Your task to perform on an android device: Check out the new nike air max 2020. Image 0: 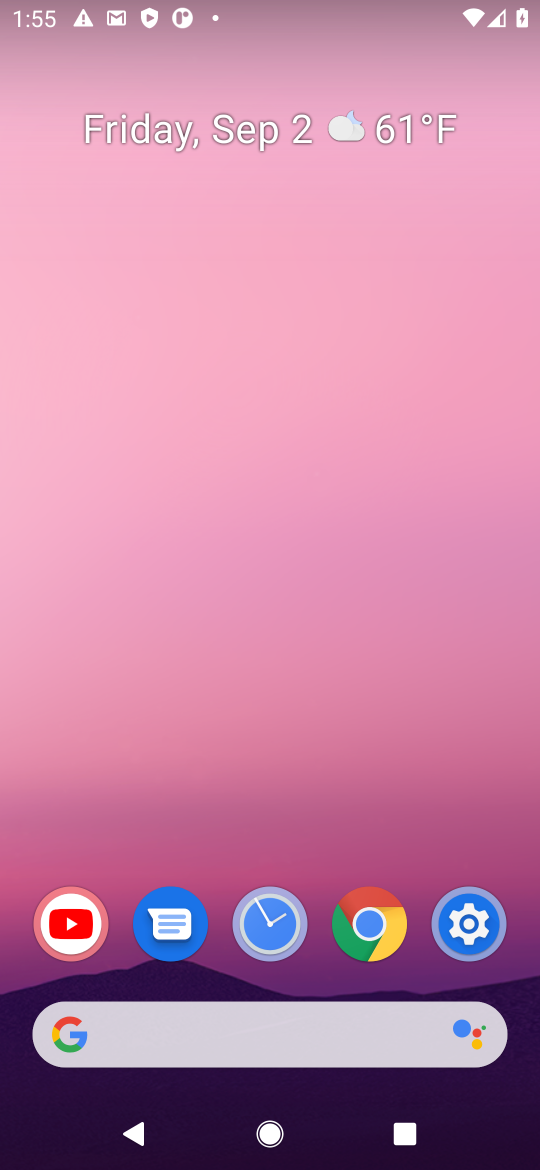
Step 0: press home button
Your task to perform on an android device: Check out the new nike air max 2020. Image 1: 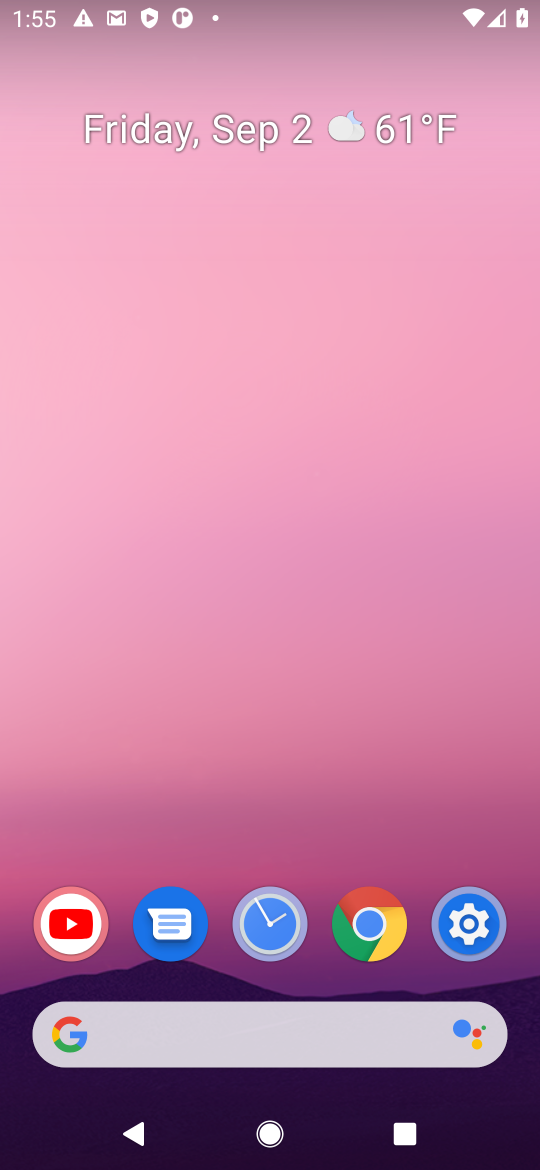
Step 1: click (389, 1034)
Your task to perform on an android device: Check out the new nike air max 2020. Image 2: 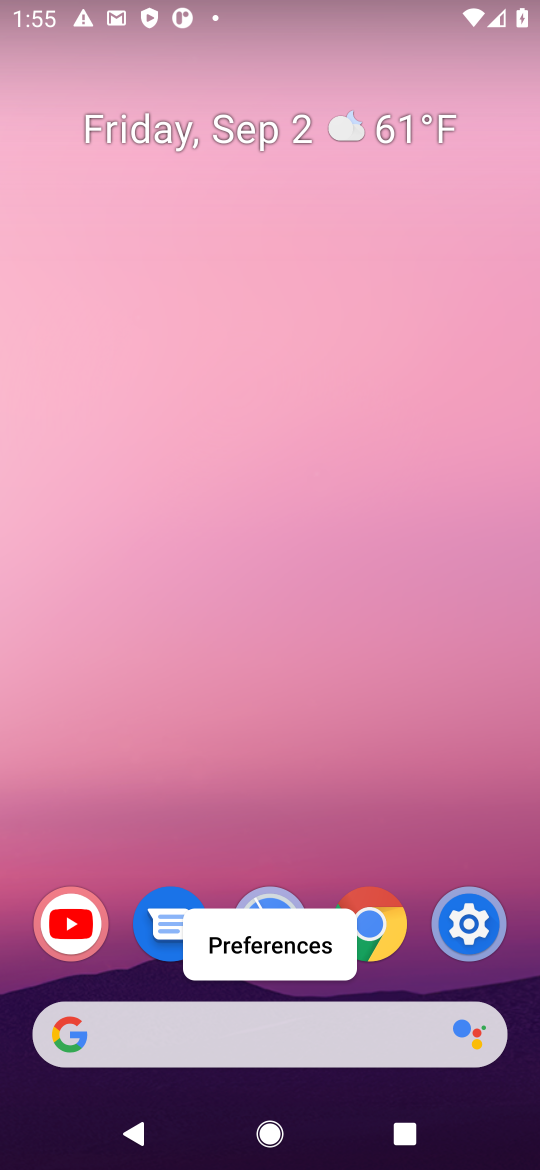
Step 2: click (389, 1034)
Your task to perform on an android device: Check out the new nike air max 2020. Image 3: 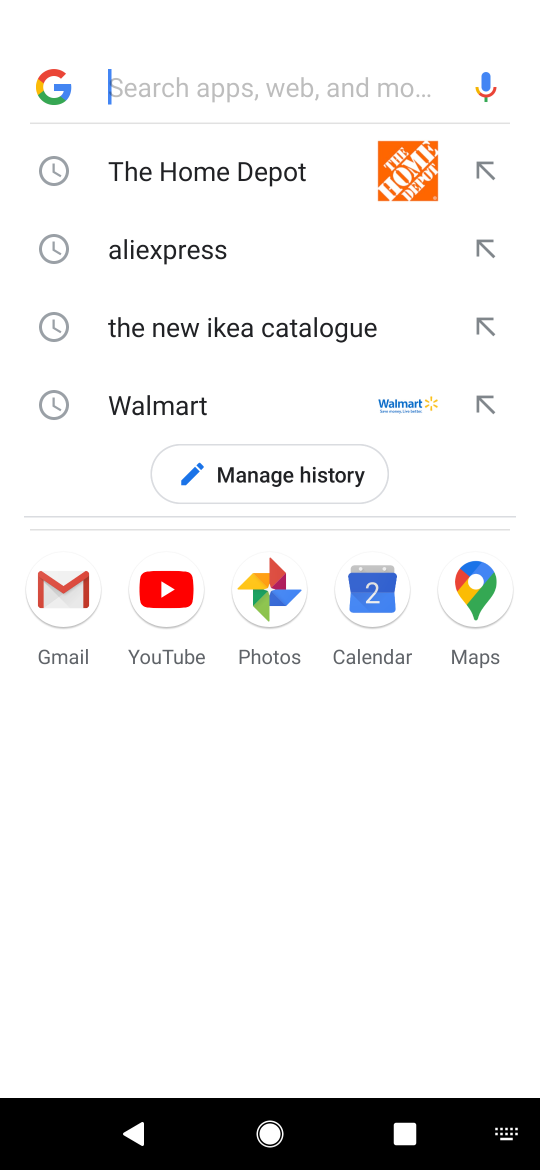
Step 3: press enter
Your task to perform on an android device: Check out the new nike air max 2020. Image 4: 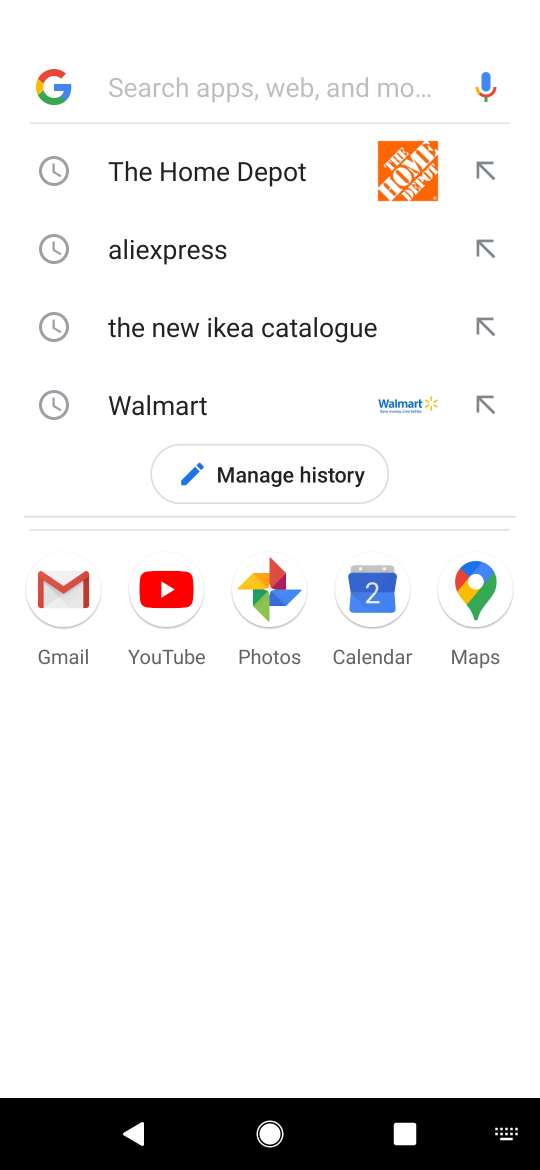
Step 4: type "nike air max 2020"
Your task to perform on an android device: Check out the new nike air max 2020. Image 5: 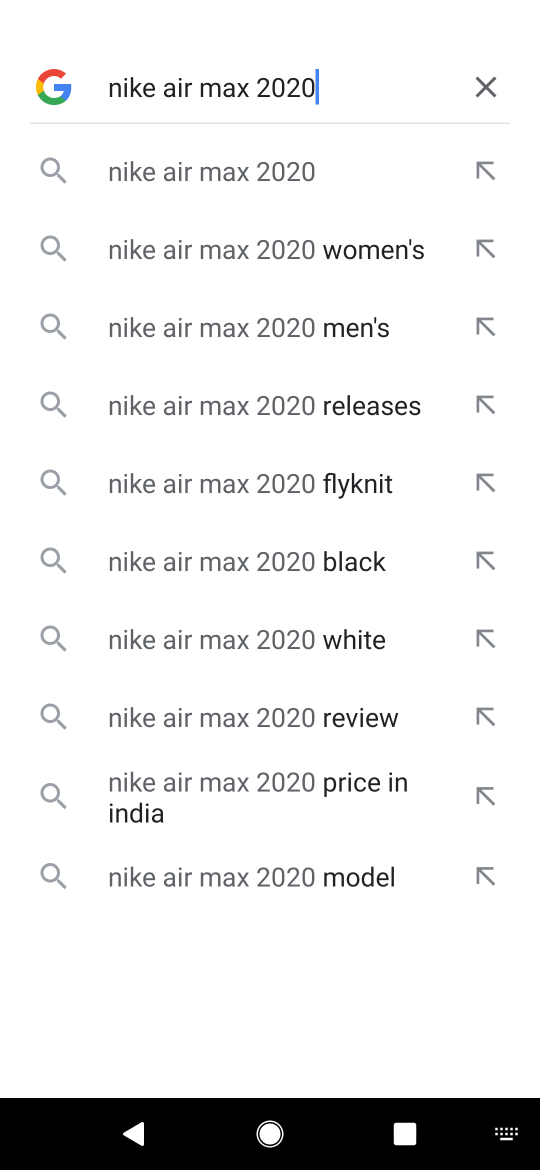
Step 5: click (185, 89)
Your task to perform on an android device: Check out the new nike air max 2020. Image 6: 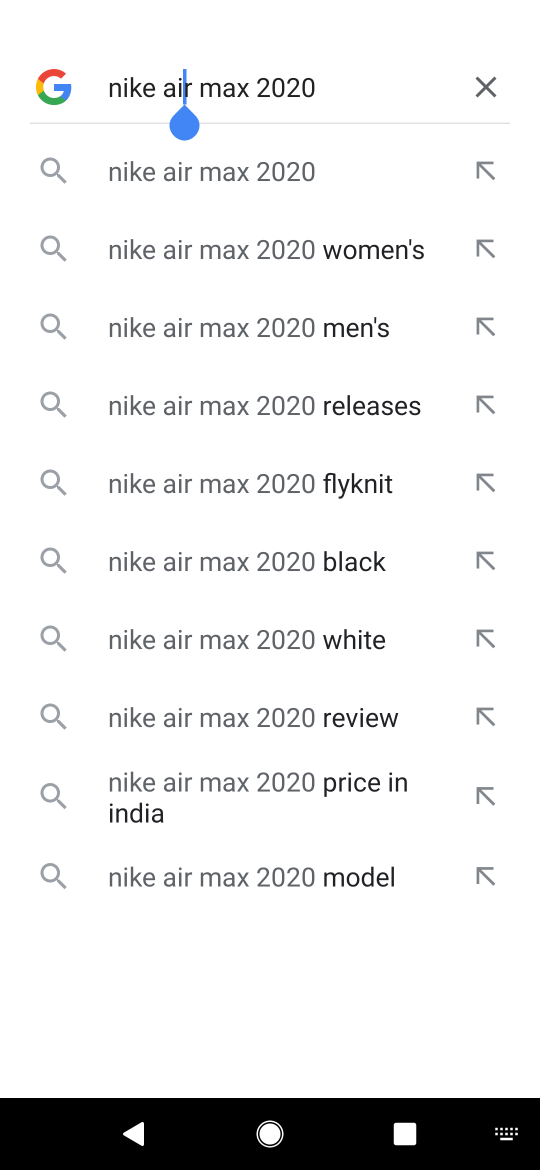
Step 6: click (294, 182)
Your task to perform on an android device: Check out the new nike air max 2020. Image 7: 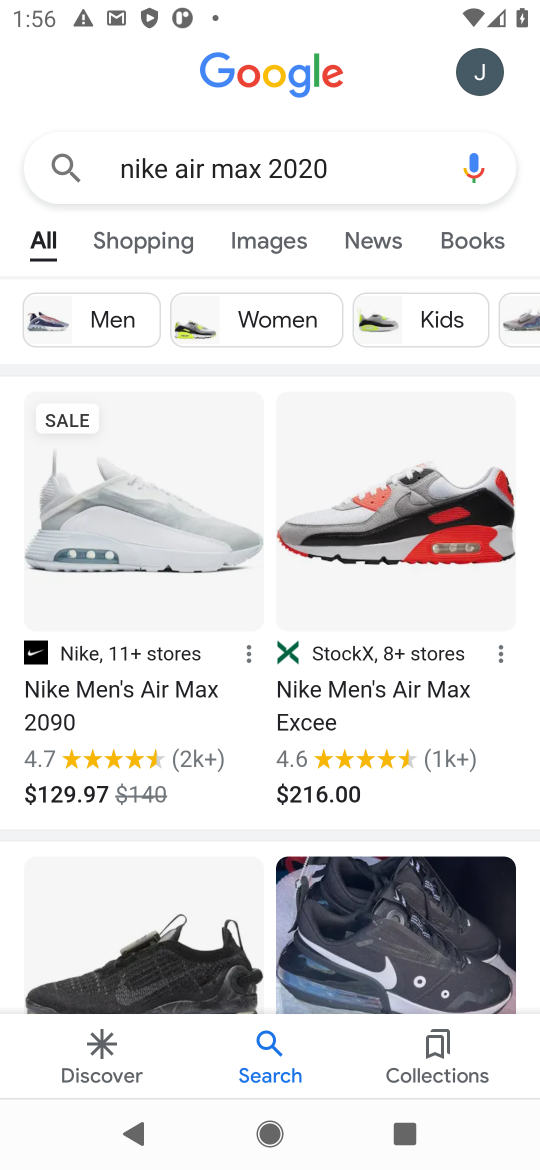
Step 7: task complete